Your task to perform on an android device: turn on sleep mode Image 0: 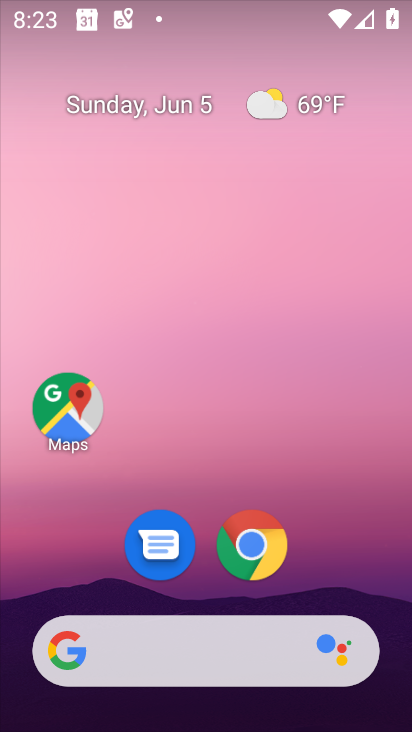
Step 0: drag from (355, 581) to (350, 145)
Your task to perform on an android device: turn on sleep mode Image 1: 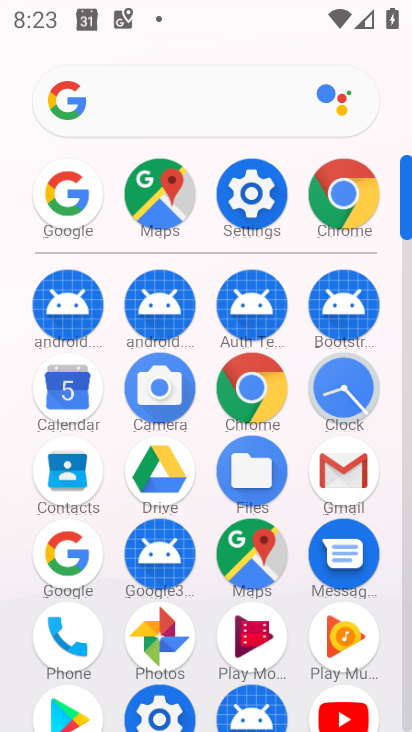
Step 1: click (263, 222)
Your task to perform on an android device: turn on sleep mode Image 2: 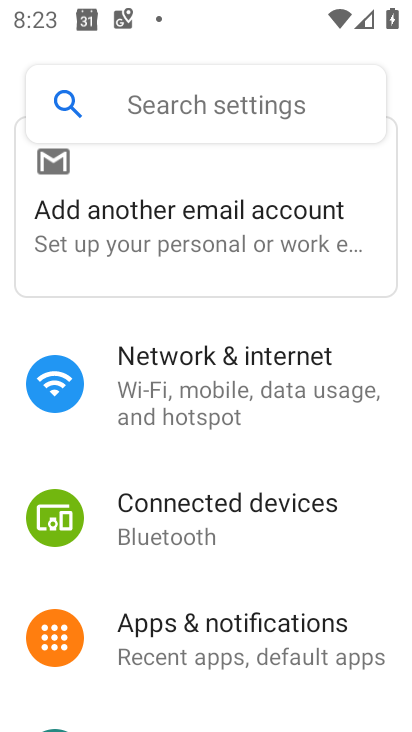
Step 2: drag from (358, 496) to (371, 438)
Your task to perform on an android device: turn on sleep mode Image 3: 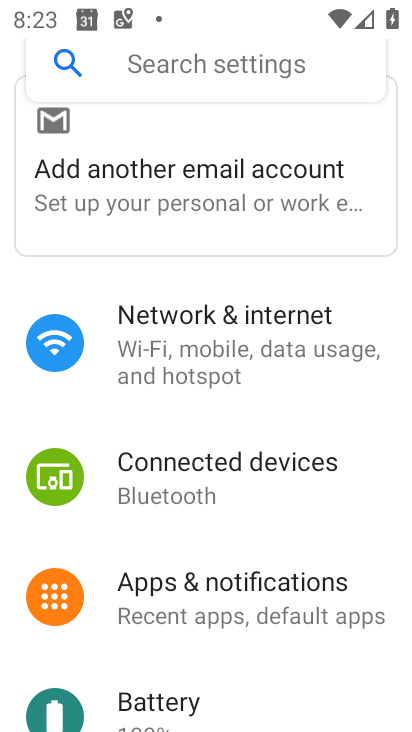
Step 3: drag from (356, 512) to (364, 423)
Your task to perform on an android device: turn on sleep mode Image 4: 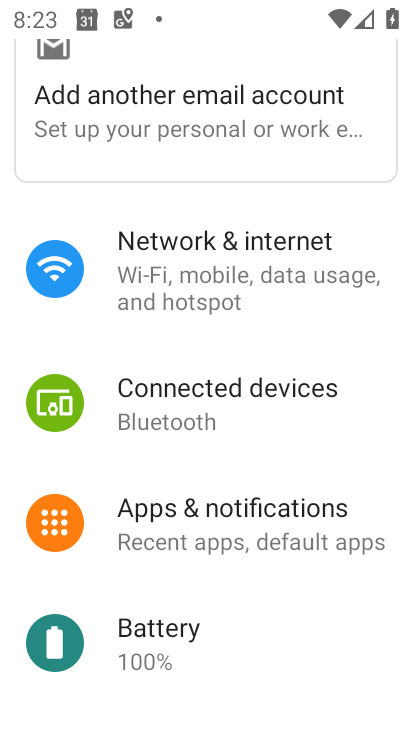
Step 4: drag from (365, 499) to (368, 396)
Your task to perform on an android device: turn on sleep mode Image 5: 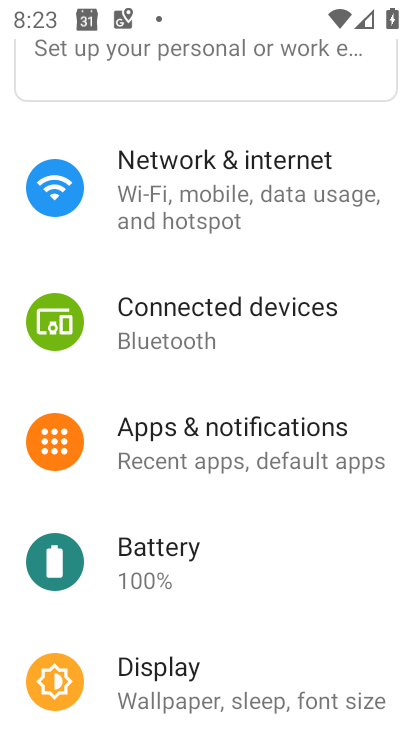
Step 5: drag from (365, 502) to (373, 382)
Your task to perform on an android device: turn on sleep mode Image 6: 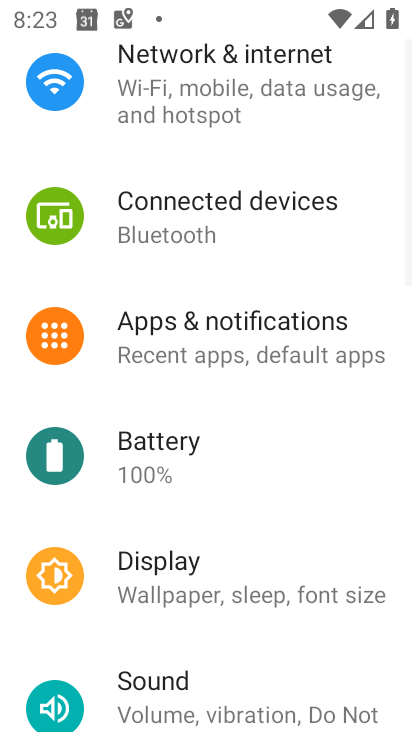
Step 6: drag from (363, 491) to (366, 388)
Your task to perform on an android device: turn on sleep mode Image 7: 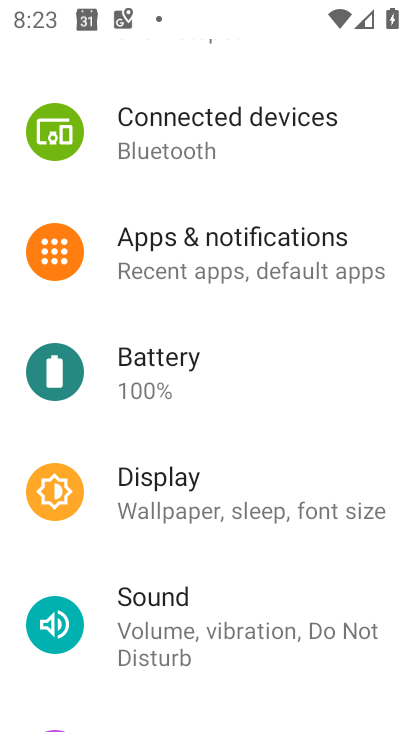
Step 7: drag from (353, 459) to (351, 349)
Your task to perform on an android device: turn on sleep mode Image 8: 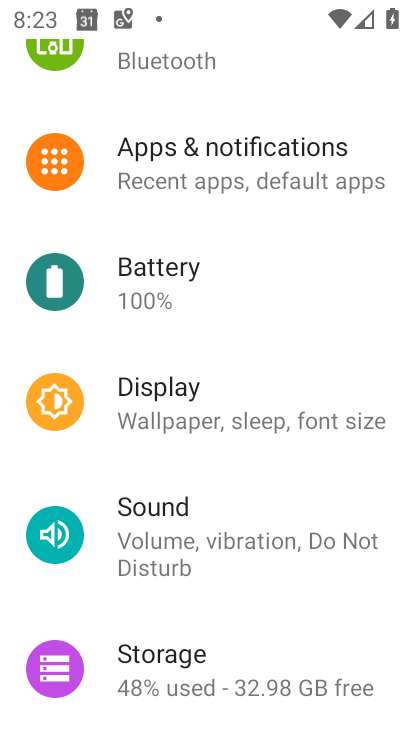
Step 8: drag from (338, 466) to (333, 275)
Your task to perform on an android device: turn on sleep mode Image 9: 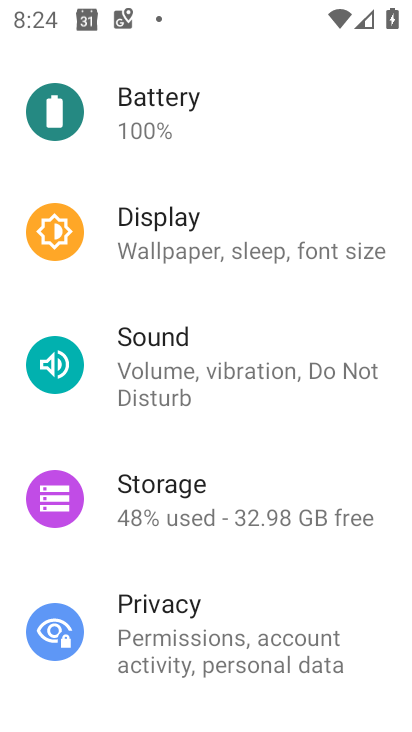
Step 9: click (242, 264)
Your task to perform on an android device: turn on sleep mode Image 10: 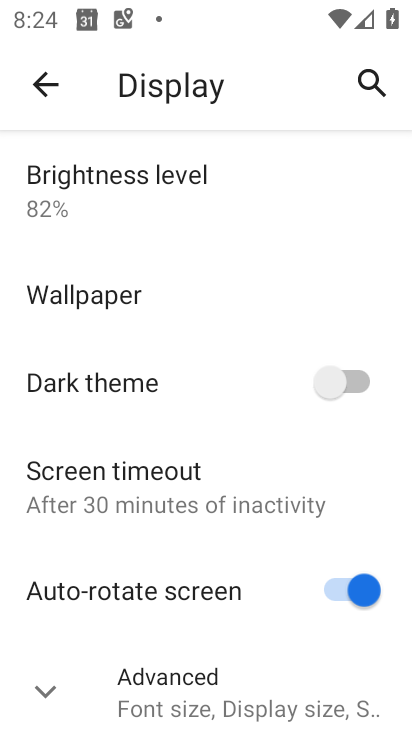
Step 10: click (229, 693)
Your task to perform on an android device: turn on sleep mode Image 11: 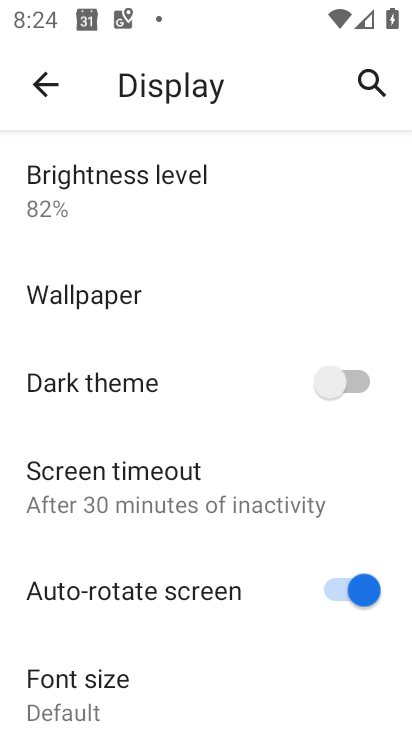
Step 11: task complete